Your task to perform on an android device: Turn off the flashlight Image 0: 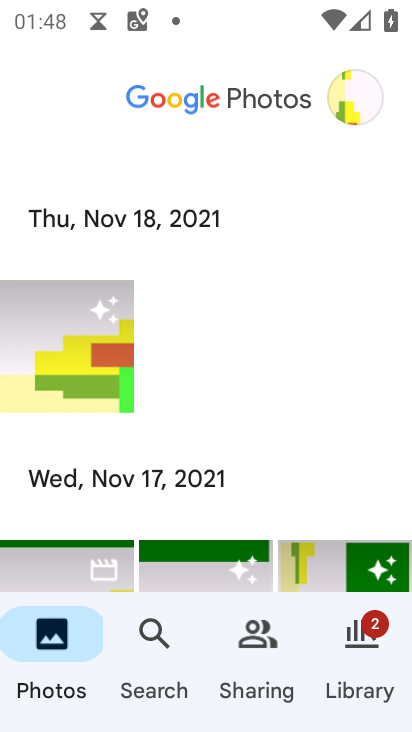
Step 0: press home button
Your task to perform on an android device: Turn off the flashlight Image 1: 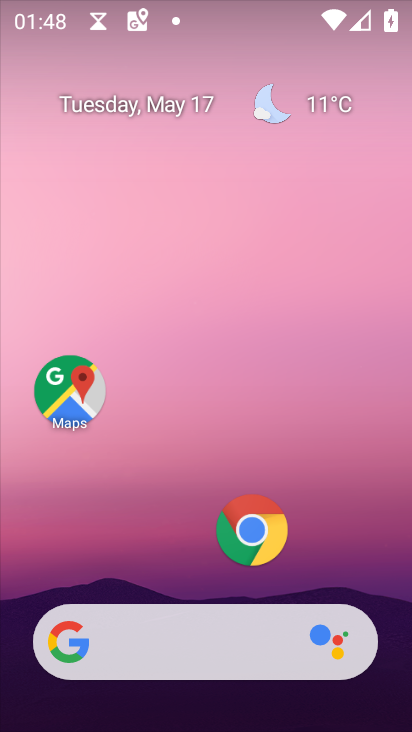
Step 1: drag from (353, 552) to (243, 170)
Your task to perform on an android device: Turn off the flashlight Image 2: 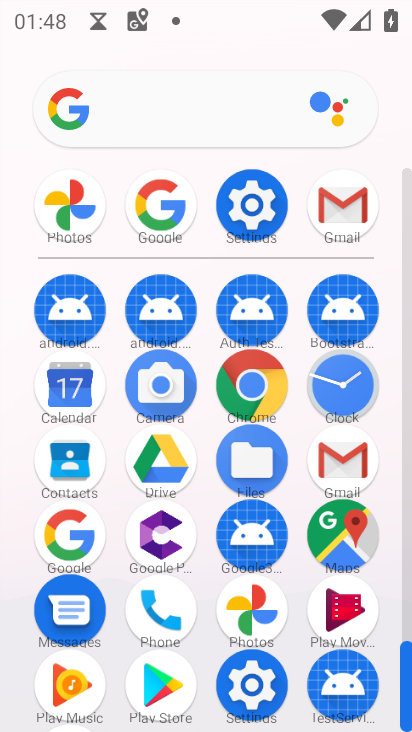
Step 2: click (235, 209)
Your task to perform on an android device: Turn off the flashlight Image 3: 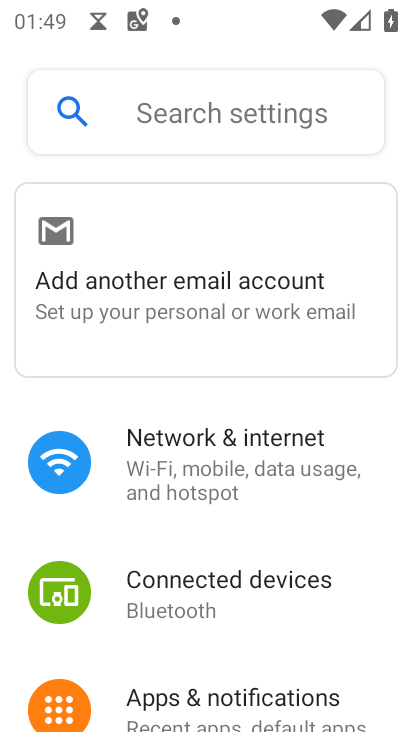
Step 3: drag from (267, 543) to (196, 116)
Your task to perform on an android device: Turn off the flashlight Image 4: 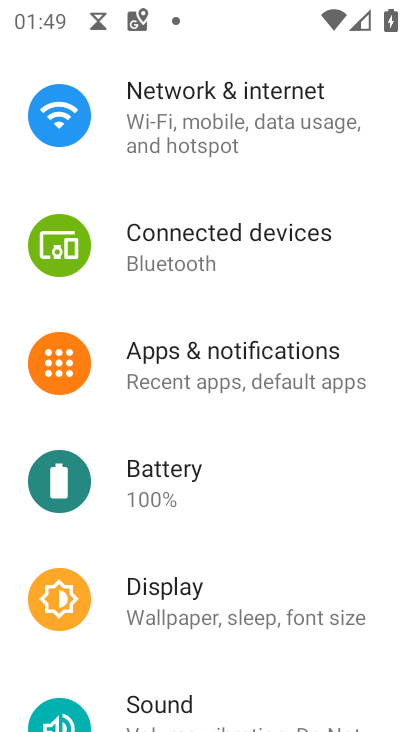
Step 4: click (165, 611)
Your task to perform on an android device: Turn off the flashlight Image 5: 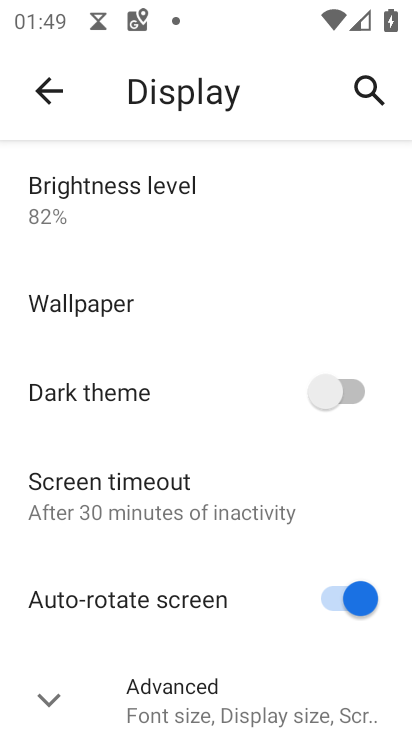
Step 5: drag from (177, 654) to (168, 229)
Your task to perform on an android device: Turn off the flashlight Image 6: 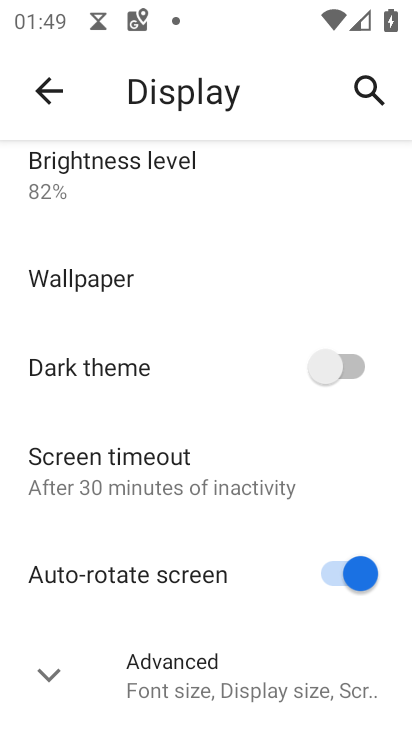
Step 6: drag from (191, 309) to (176, 630)
Your task to perform on an android device: Turn off the flashlight Image 7: 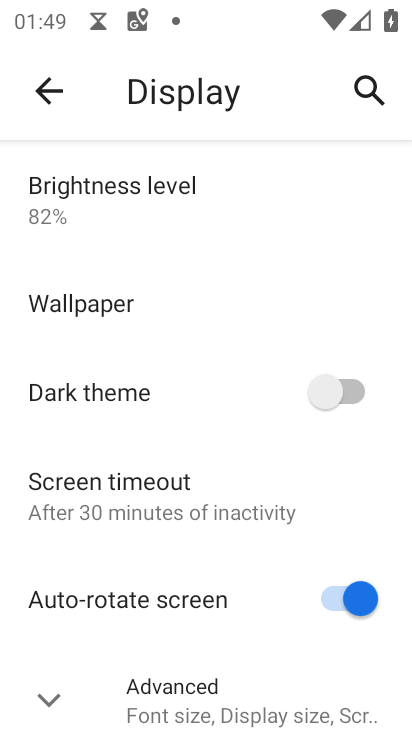
Step 7: click (62, 696)
Your task to perform on an android device: Turn off the flashlight Image 8: 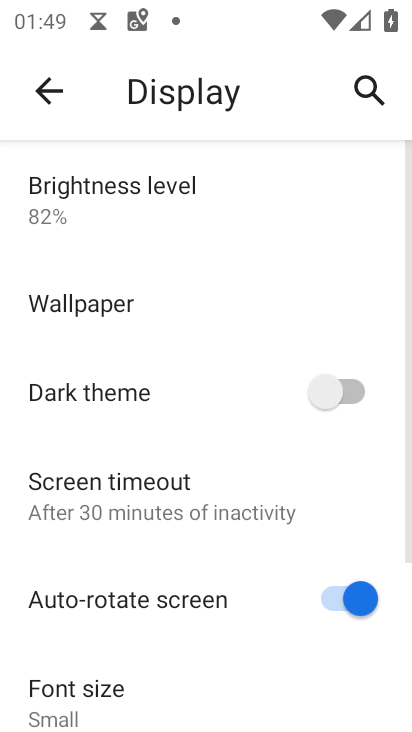
Step 8: task complete